Your task to perform on an android device: Do I have any events this weekend? Image 0: 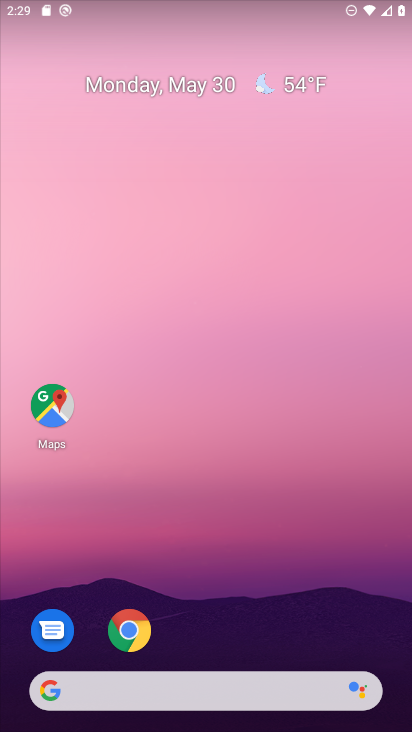
Step 0: press home button
Your task to perform on an android device: Do I have any events this weekend? Image 1: 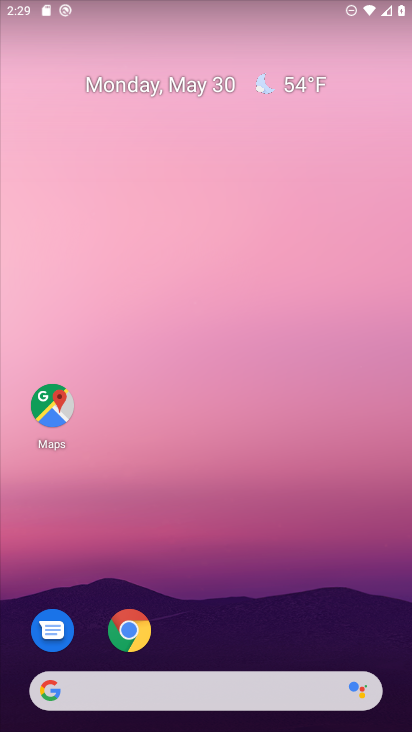
Step 1: drag from (172, 692) to (327, 112)
Your task to perform on an android device: Do I have any events this weekend? Image 2: 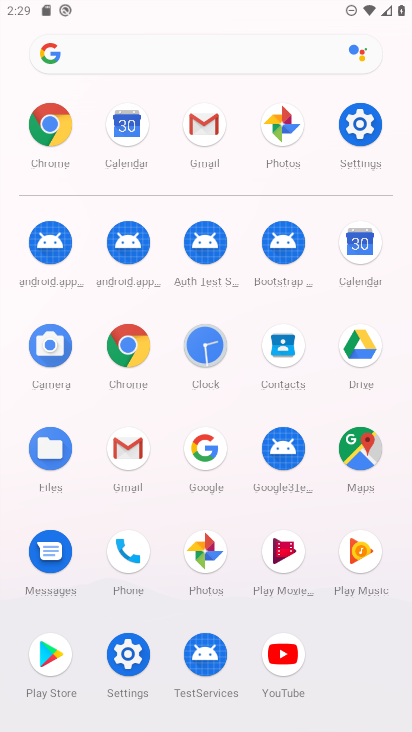
Step 2: click (357, 245)
Your task to perform on an android device: Do I have any events this weekend? Image 3: 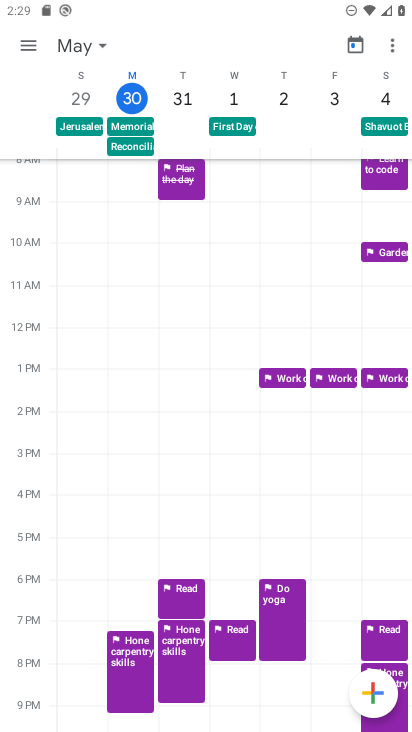
Step 3: click (78, 43)
Your task to perform on an android device: Do I have any events this weekend? Image 4: 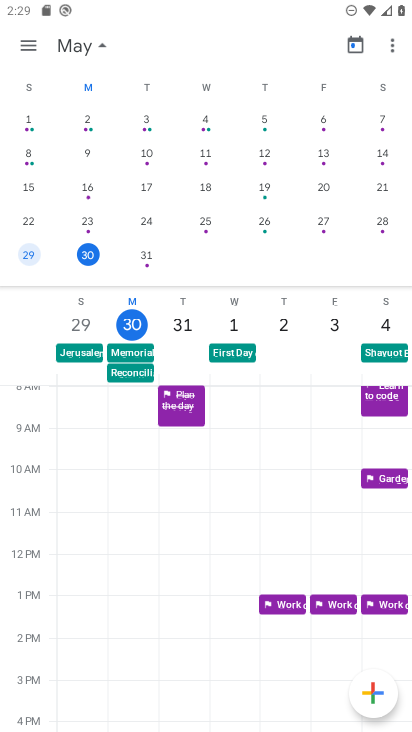
Step 4: drag from (382, 223) to (9, 239)
Your task to perform on an android device: Do I have any events this weekend? Image 5: 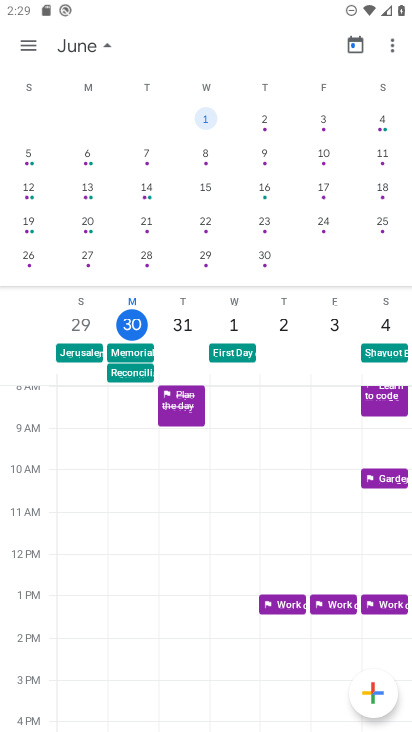
Step 5: click (379, 113)
Your task to perform on an android device: Do I have any events this weekend? Image 6: 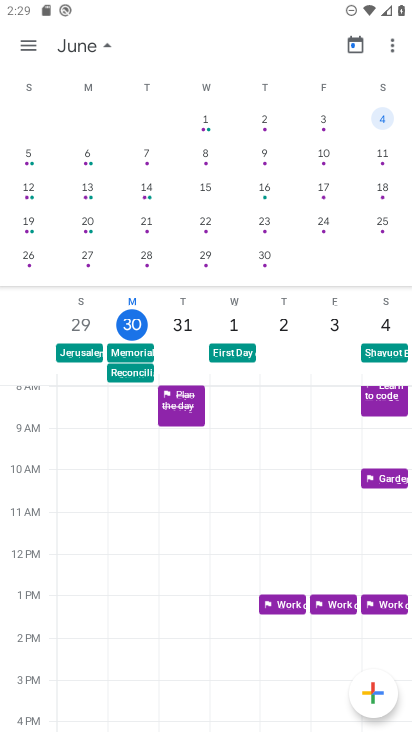
Step 6: click (25, 44)
Your task to perform on an android device: Do I have any events this weekend? Image 7: 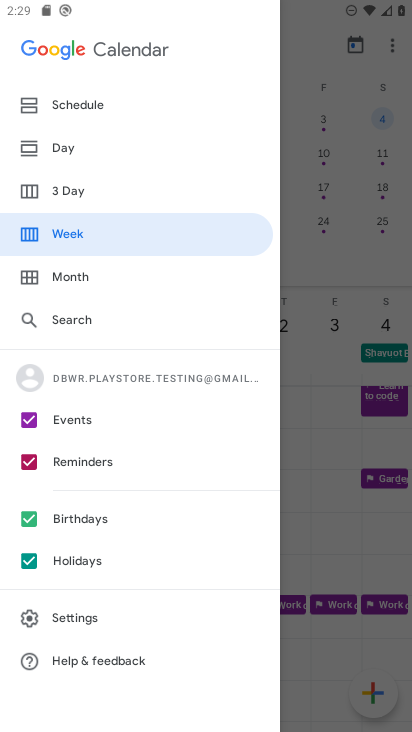
Step 7: click (61, 143)
Your task to perform on an android device: Do I have any events this weekend? Image 8: 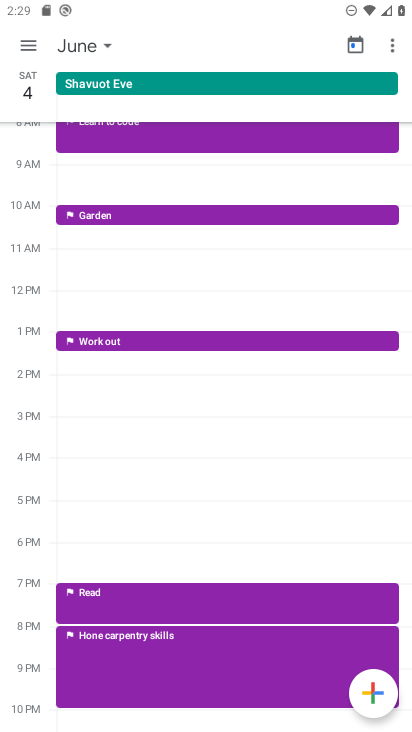
Step 8: click (27, 43)
Your task to perform on an android device: Do I have any events this weekend? Image 9: 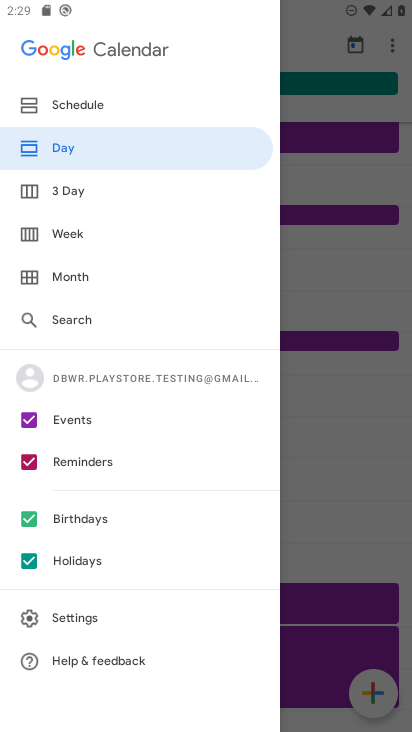
Step 9: click (99, 105)
Your task to perform on an android device: Do I have any events this weekend? Image 10: 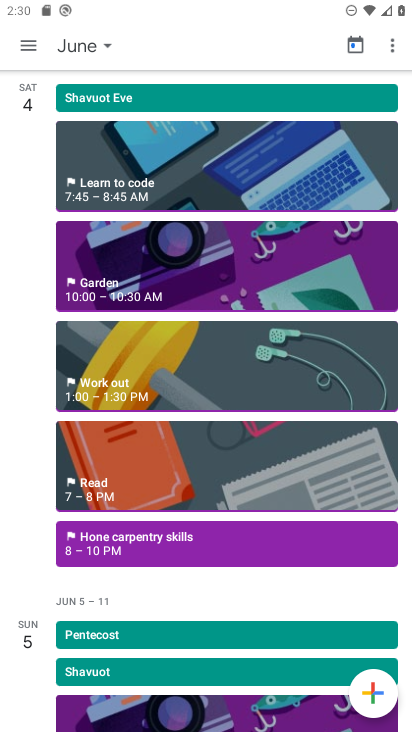
Step 10: click (198, 261)
Your task to perform on an android device: Do I have any events this weekend? Image 11: 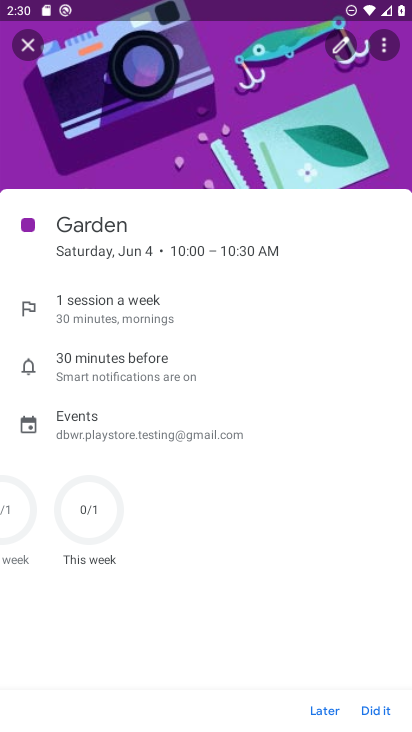
Step 11: task complete